Your task to perform on an android device: Open Chrome and go to settings Image 0: 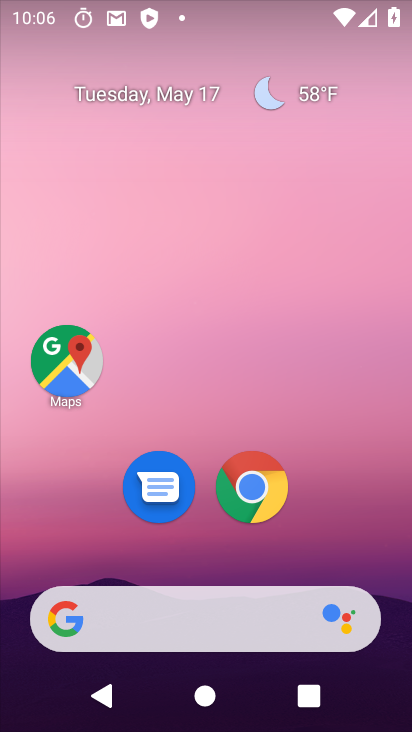
Step 0: click (251, 492)
Your task to perform on an android device: Open Chrome and go to settings Image 1: 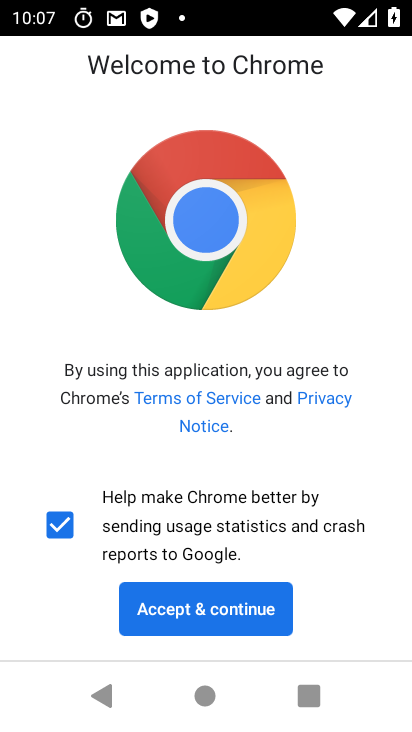
Step 1: click (216, 610)
Your task to perform on an android device: Open Chrome and go to settings Image 2: 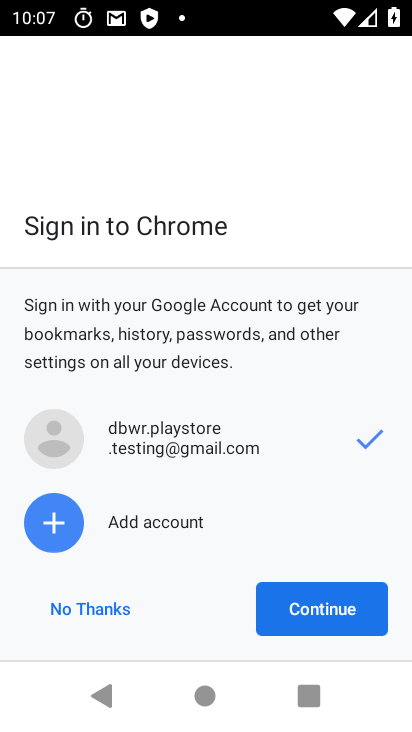
Step 2: click (311, 609)
Your task to perform on an android device: Open Chrome and go to settings Image 3: 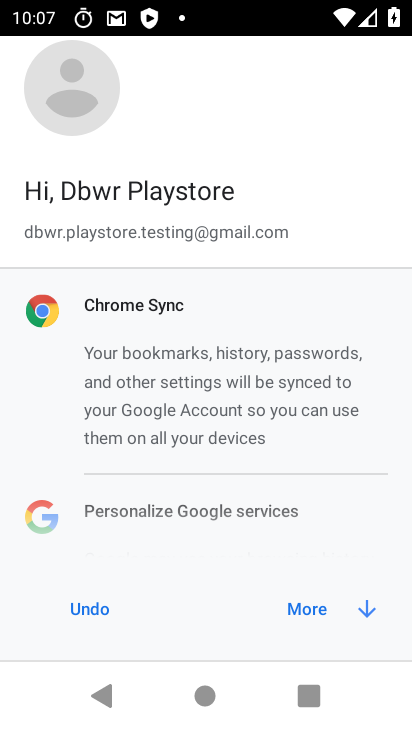
Step 3: click (309, 605)
Your task to perform on an android device: Open Chrome and go to settings Image 4: 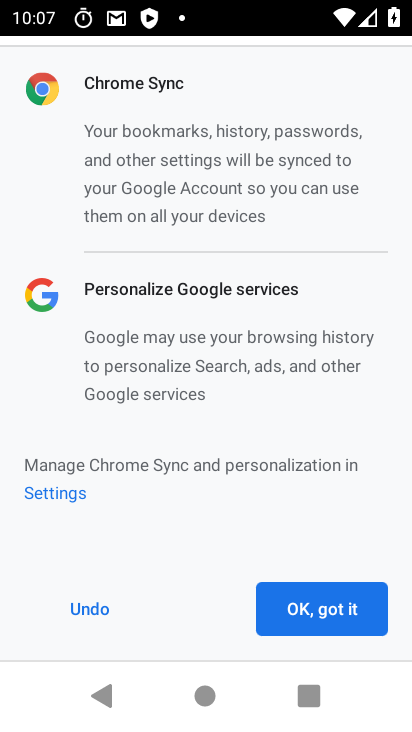
Step 4: click (334, 607)
Your task to perform on an android device: Open Chrome and go to settings Image 5: 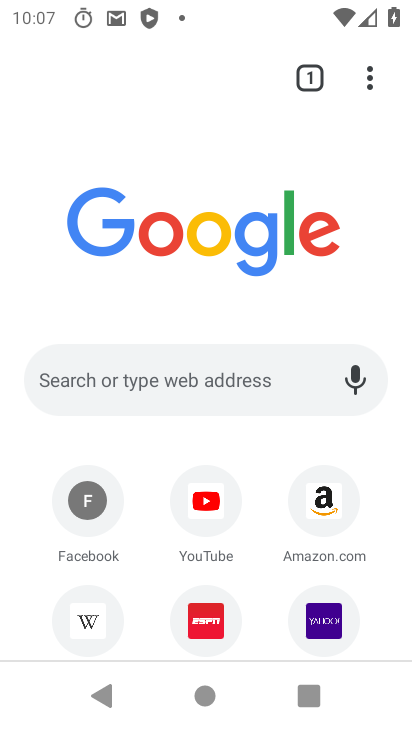
Step 5: click (373, 87)
Your task to perform on an android device: Open Chrome and go to settings Image 6: 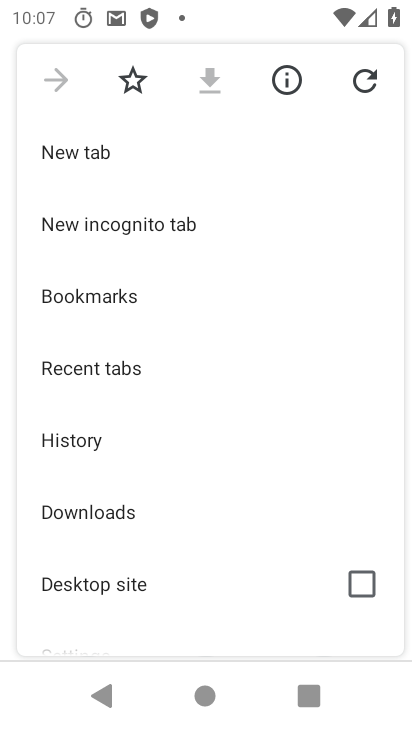
Step 6: drag from (118, 601) to (162, 222)
Your task to perform on an android device: Open Chrome and go to settings Image 7: 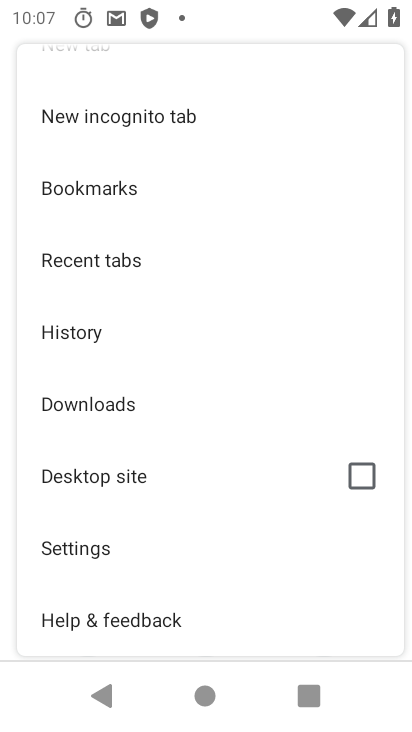
Step 7: click (89, 541)
Your task to perform on an android device: Open Chrome and go to settings Image 8: 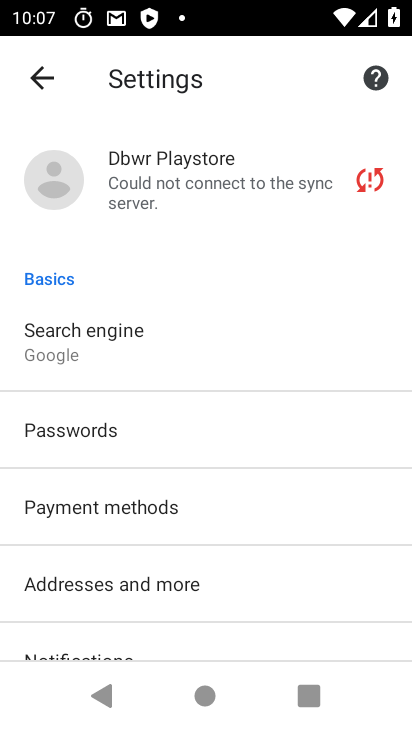
Step 8: task complete